Your task to perform on an android device: Open Chrome and go to settings Image 0: 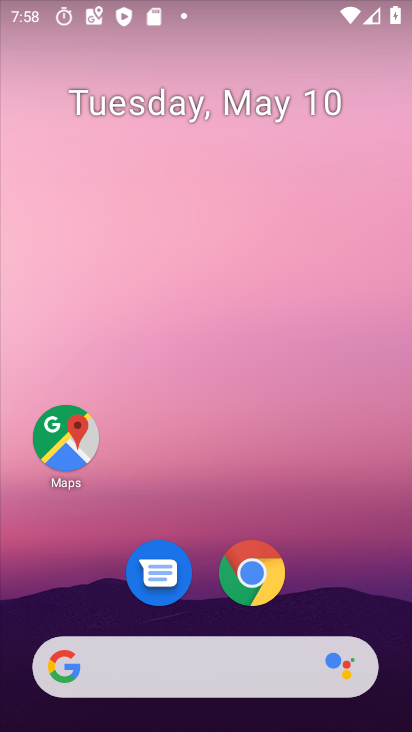
Step 0: press home button
Your task to perform on an android device: Open Chrome and go to settings Image 1: 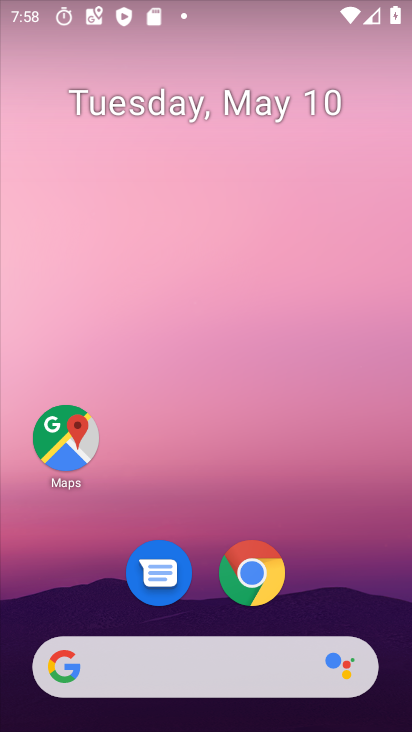
Step 1: drag from (379, 550) to (341, 129)
Your task to perform on an android device: Open Chrome and go to settings Image 2: 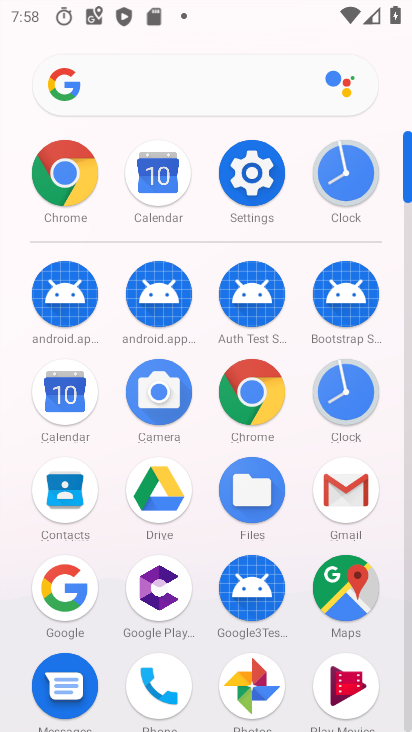
Step 2: click (256, 407)
Your task to perform on an android device: Open Chrome and go to settings Image 3: 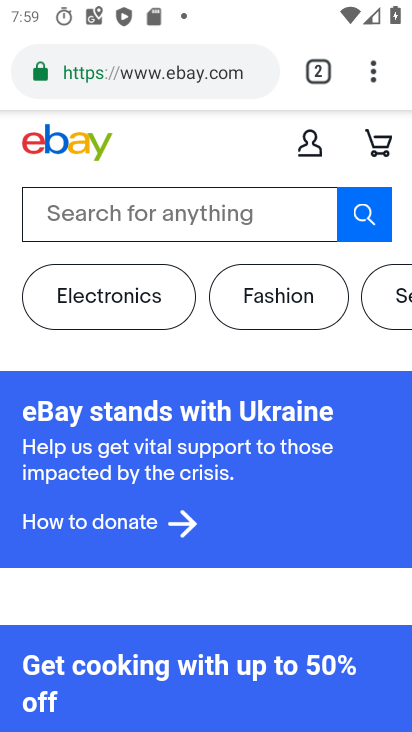
Step 3: task complete